Your task to perform on an android device: Search for a 1/4" hex shank drill bit on Lowe's. Image 0: 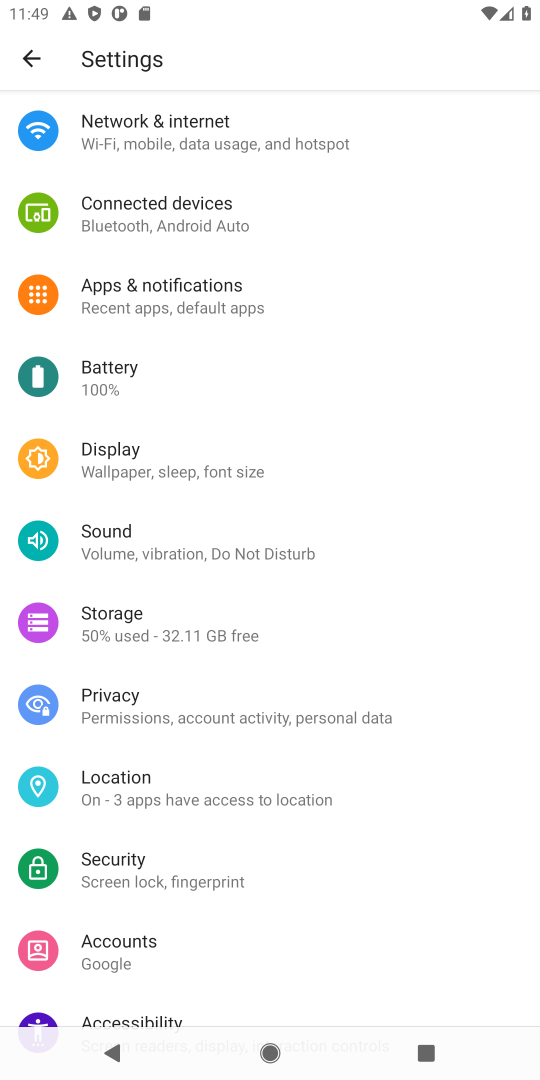
Step 0: press home button
Your task to perform on an android device: Search for a 1/4" hex shank drill bit on Lowe's. Image 1: 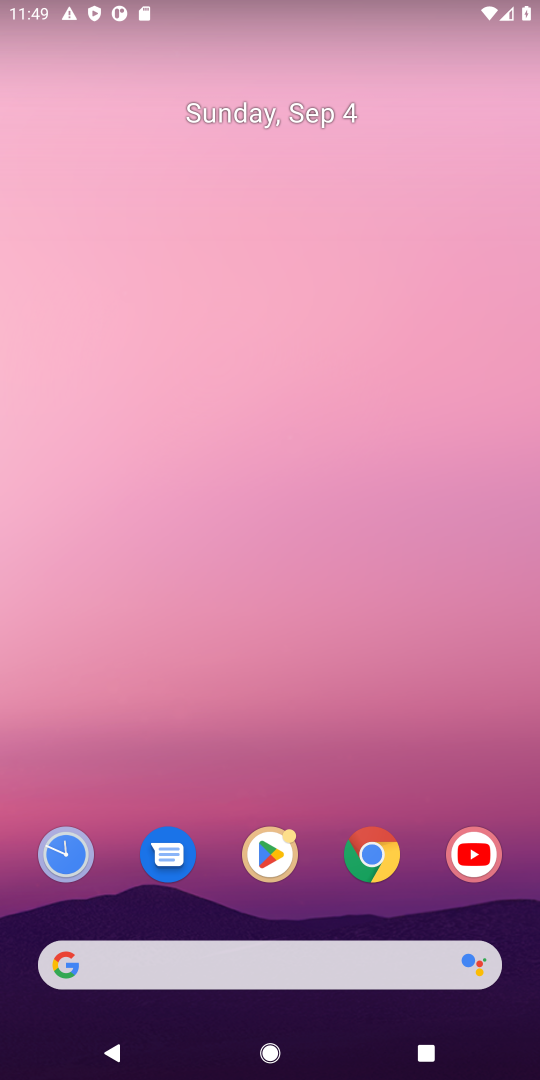
Step 1: click (286, 967)
Your task to perform on an android device: Search for a 1/4" hex shank drill bit on Lowe's. Image 2: 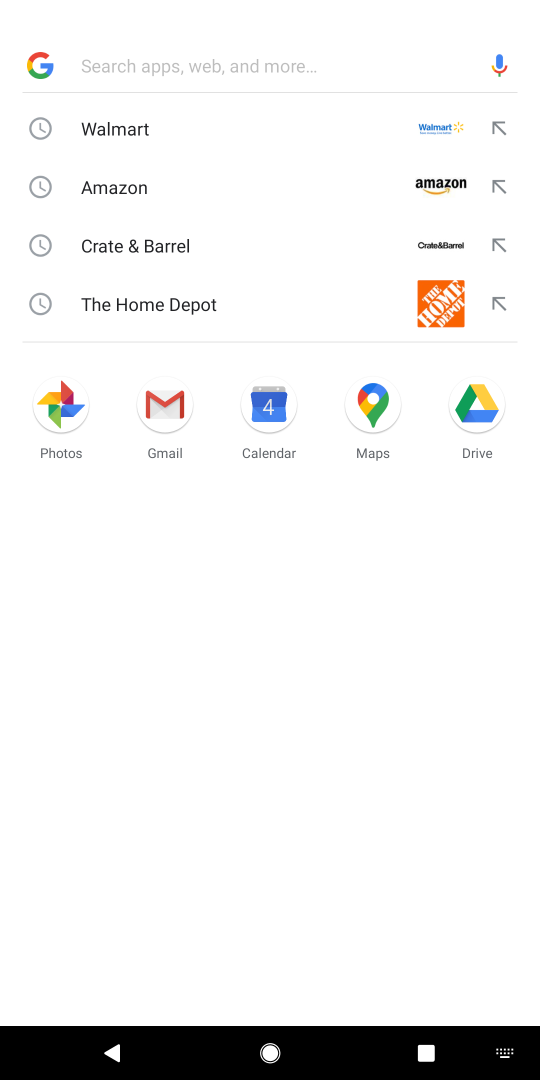
Step 2: press enter
Your task to perform on an android device: Search for a 1/4" hex shank drill bit on Lowe's. Image 3: 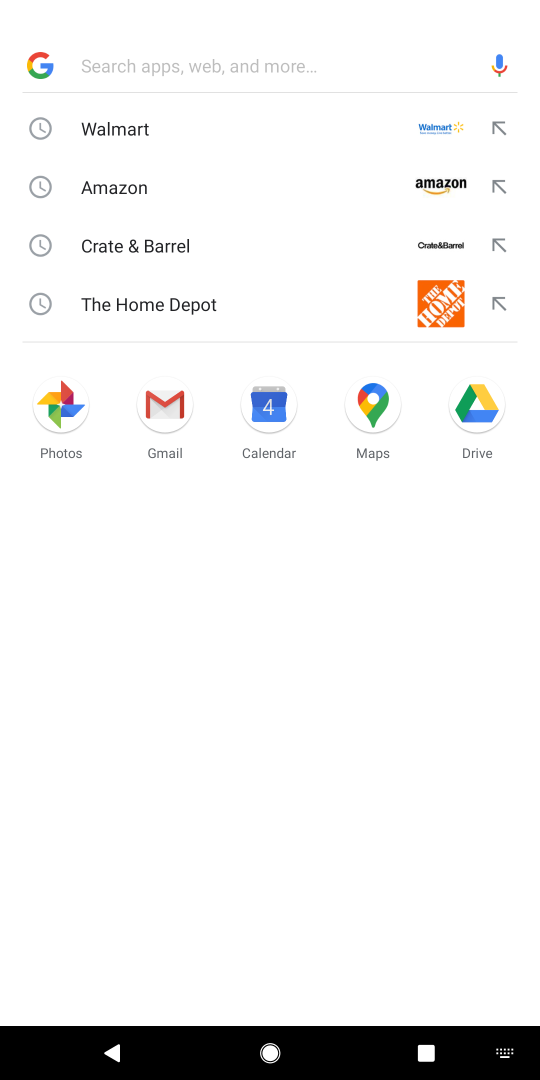
Step 3: type "lowes"
Your task to perform on an android device: Search for a 1/4" hex shank drill bit on Lowe's. Image 4: 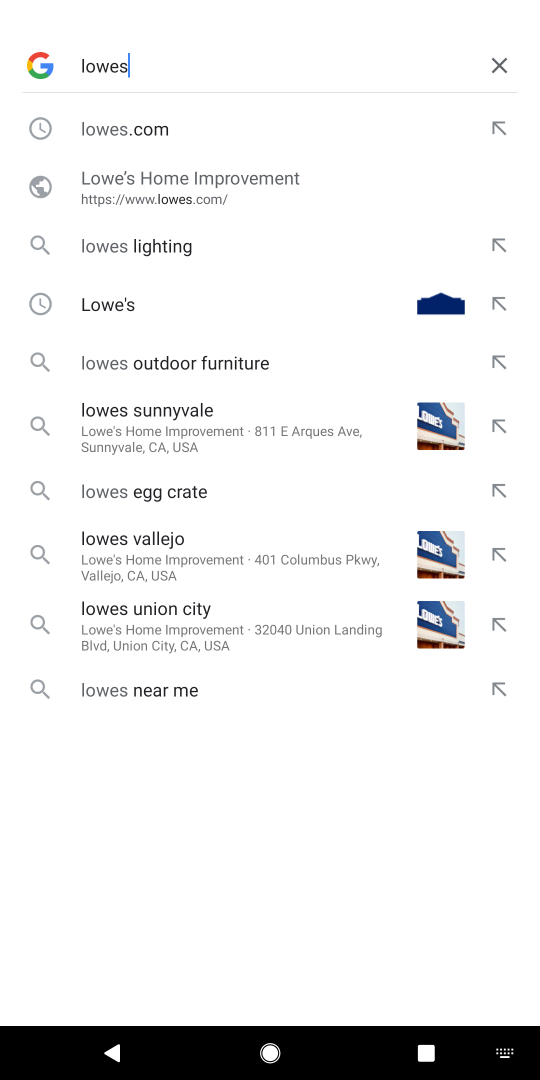
Step 4: click (188, 182)
Your task to perform on an android device: Search for a 1/4" hex shank drill bit on Lowe's. Image 5: 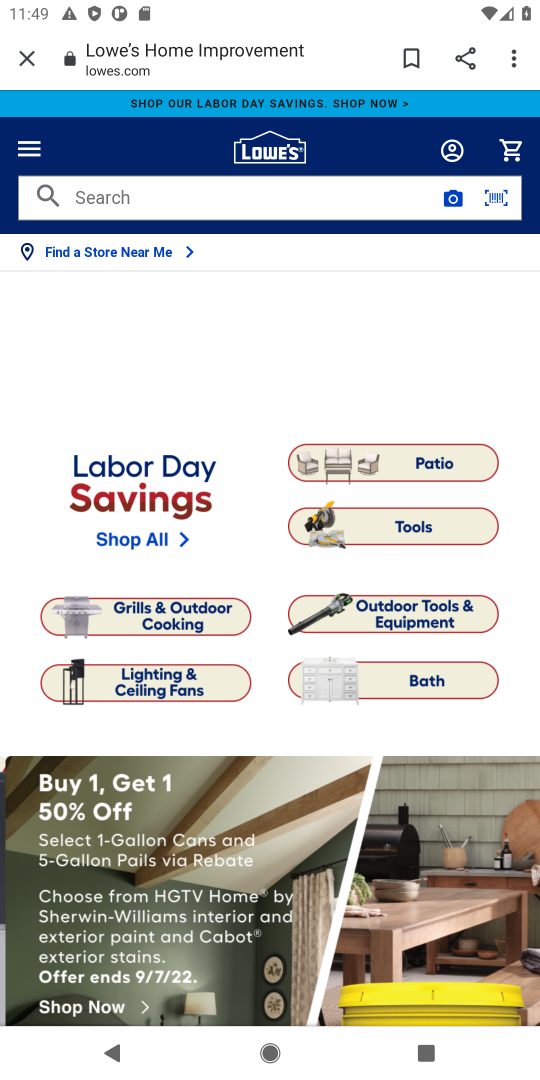
Step 5: click (183, 200)
Your task to perform on an android device: Search for a 1/4" hex shank drill bit on Lowe's. Image 6: 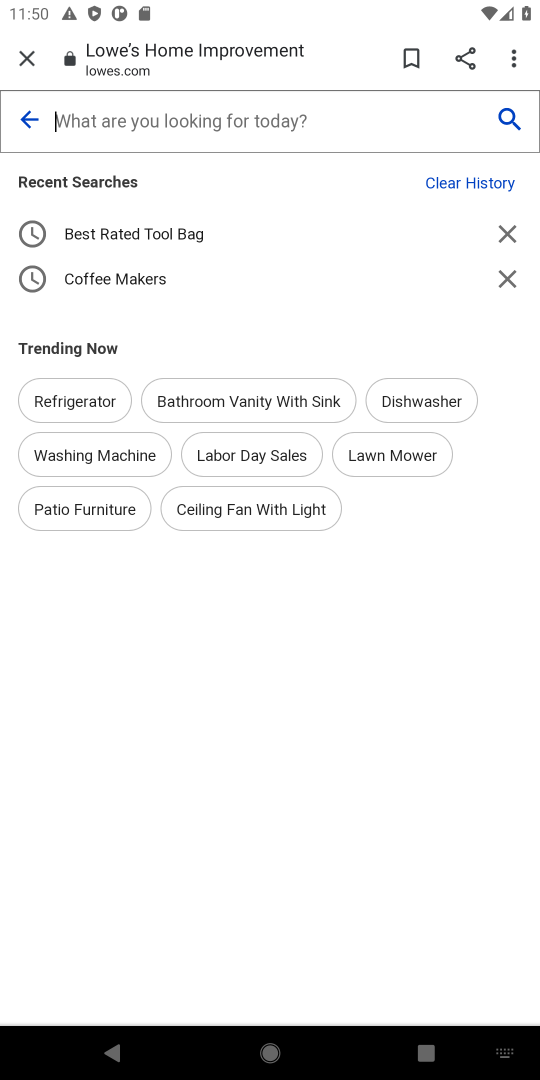
Step 6: type "1/4" hex shank drill bit "
Your task to perform on an android device: Search for a 1/4" hex shank drill bit on Lowe's. Image 7: 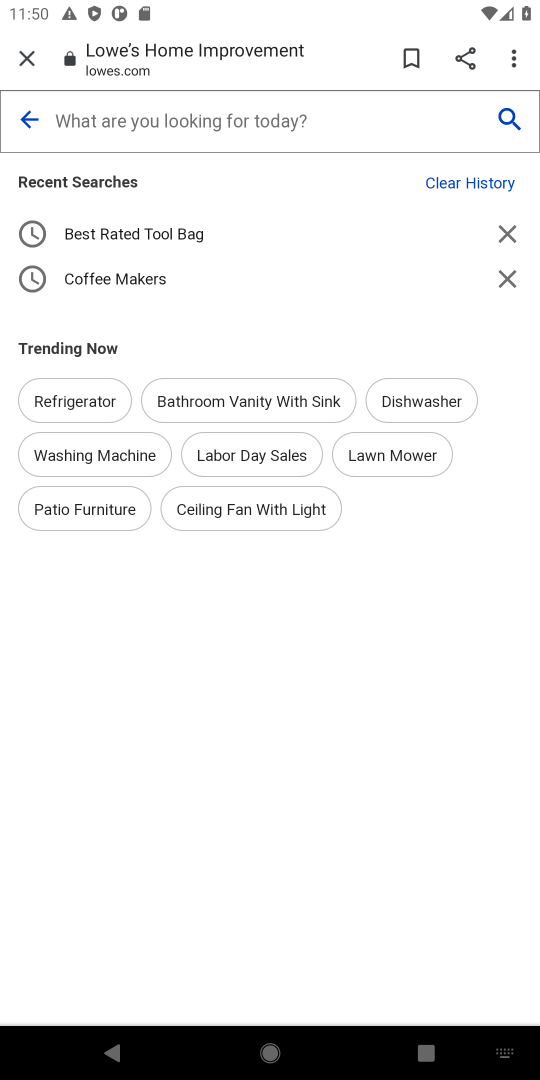
Step 7: type "1/4" hex shank drill bit "
Your task to perform on an android device: Search for a 1/4" hex shank drill bit on Lowe's. Image 8: 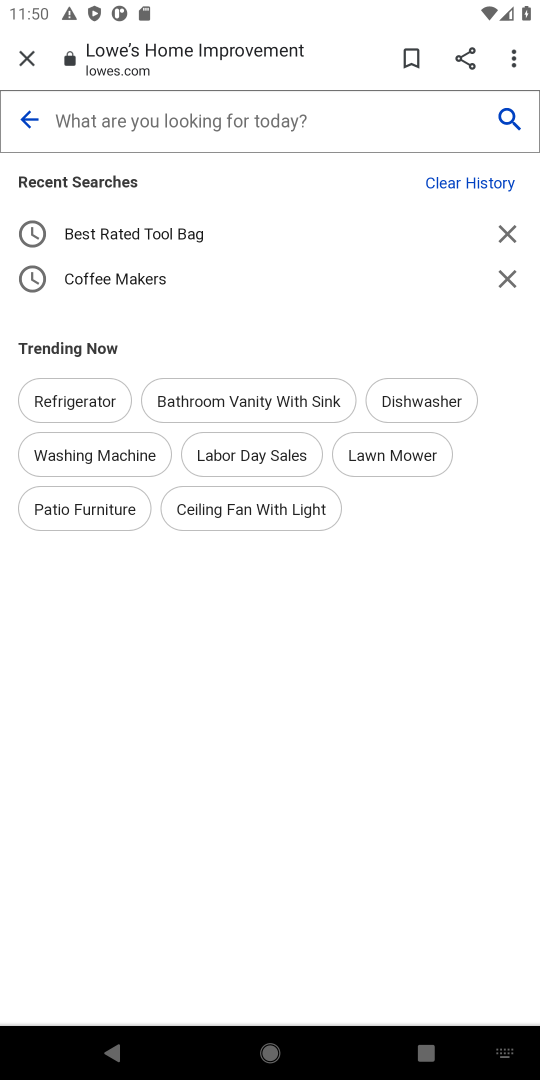
Step 8: task complete